Your task to perform on an android device: change your default location settings in chrome Image 0: 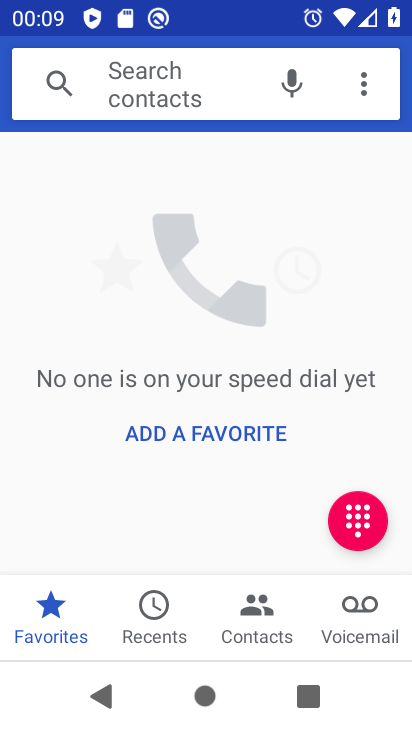
Step 0: press home button
Your task to perform on an android device: change your default location settings in chrome Image 1: 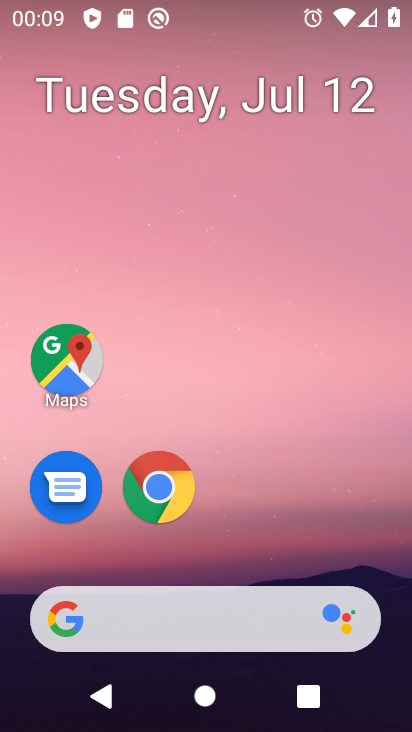
Step 1: drag from (367, 537) to (358, 252)
Your task to perform on an android device: change your default location settings in chrome Image 2: 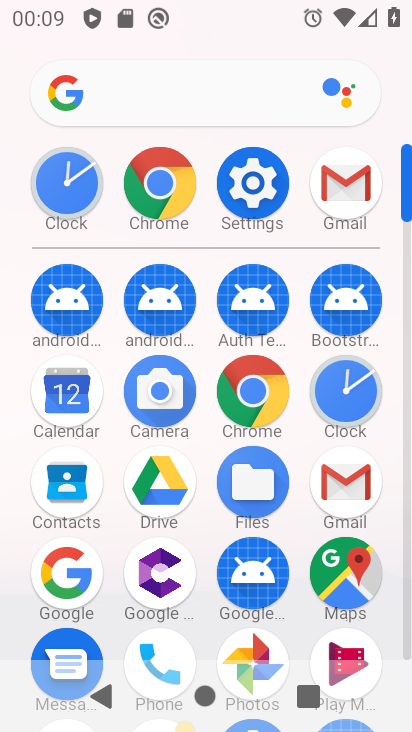
Step 2: click (263, 399)
Your task to perform on an android device: change your default location settings in chrome Image 3: 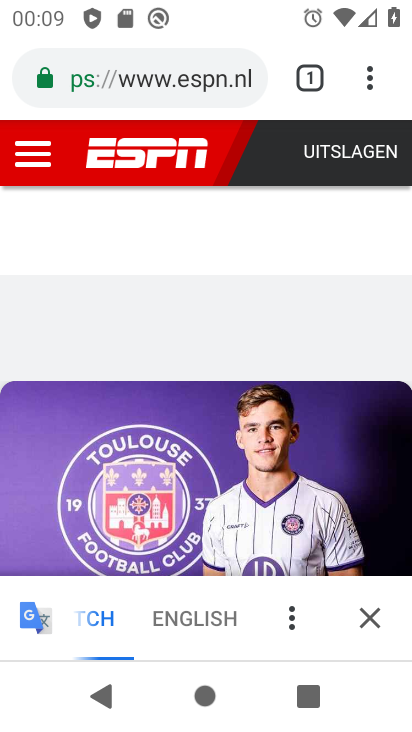
Step 3: click (366, 84)
Your task to perform on an android device: change your default location settings in chrome Image 4: 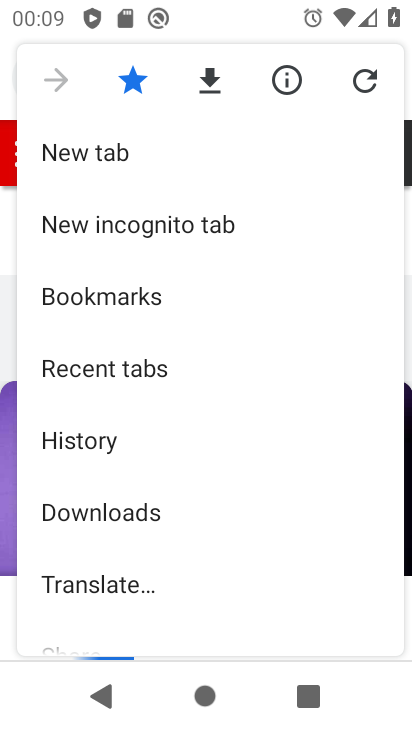
Step 4: drag from (319, 420) to (315, 271)
Your task to perform on an android device: change your default location settings in chrome Image 5: 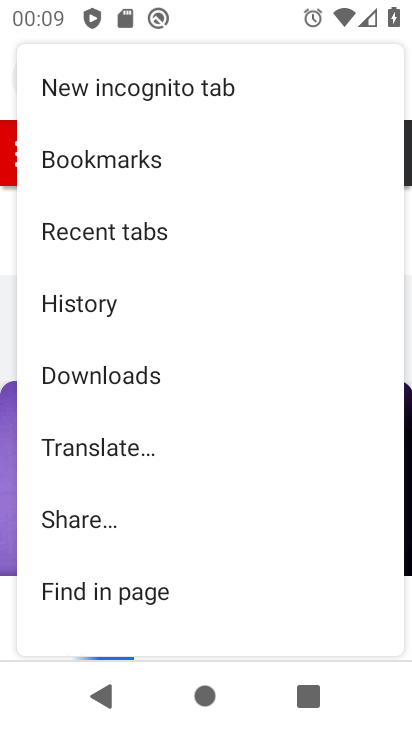
Step 5: drag from (319, 409) to (319, 297)
Your task to perform on an android device: change your default location settings in chrome Image 6: 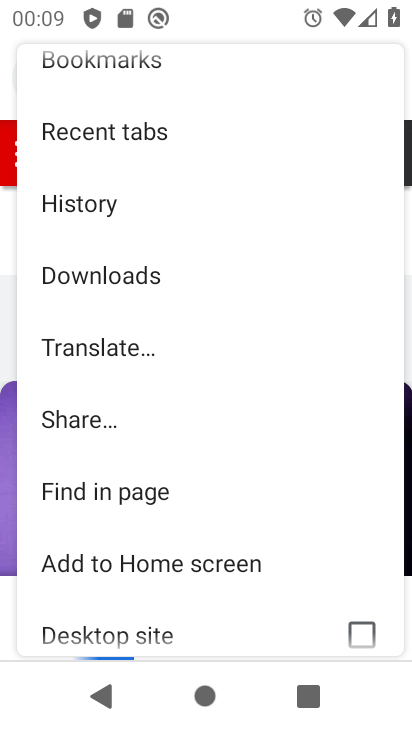
Step 6: drag from (321, 441) to (327, 334)
Your task to perform on an android device: change your default location settings in chrome Image 7: 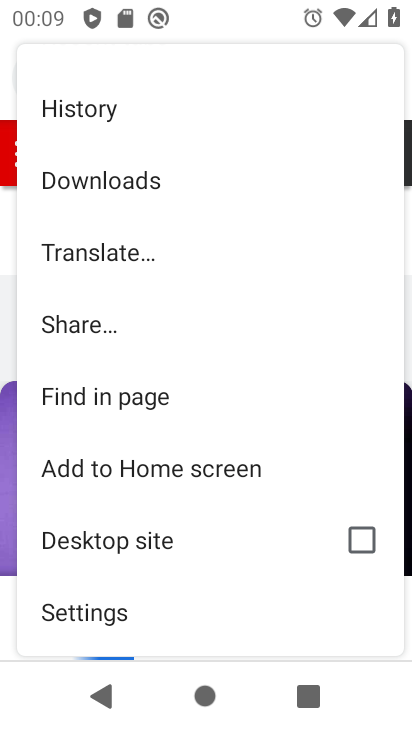
Step 7: drag from (327, 448) to (327, 332)
Your task to perform on an android device: change your default location settings in chrome Image 8: 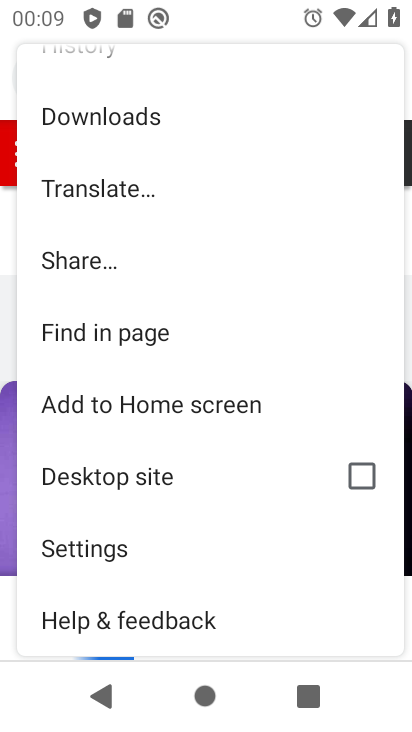
Step 8: click (163, 564)
Your task to perform on an android device: change your default location settings in chrome Image 9: 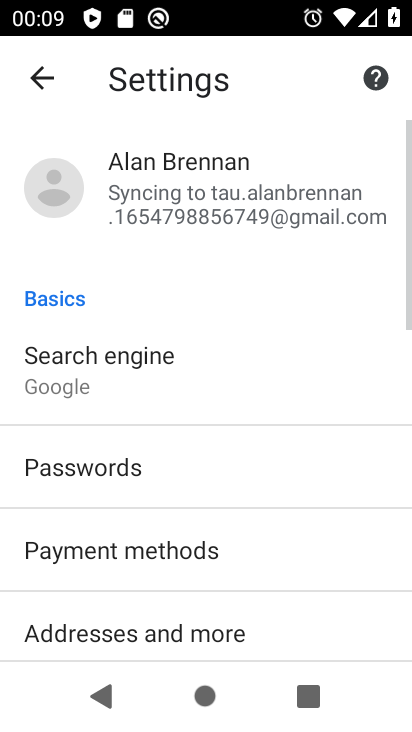
Step 9: drag from (310, 490) to (320, 376)
Your task to perform on an android device: change your default location settings in chrome Image 10: 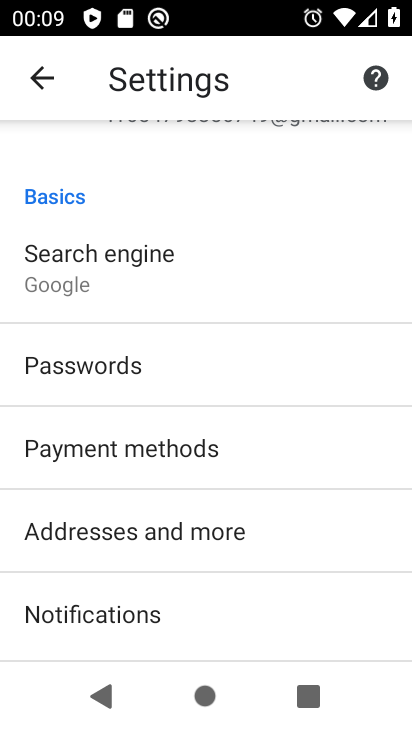
Step 10: drag from (331, 522) to (327, 423)
Your task to perform on an android device: change your default location settings in chrome Image 11: 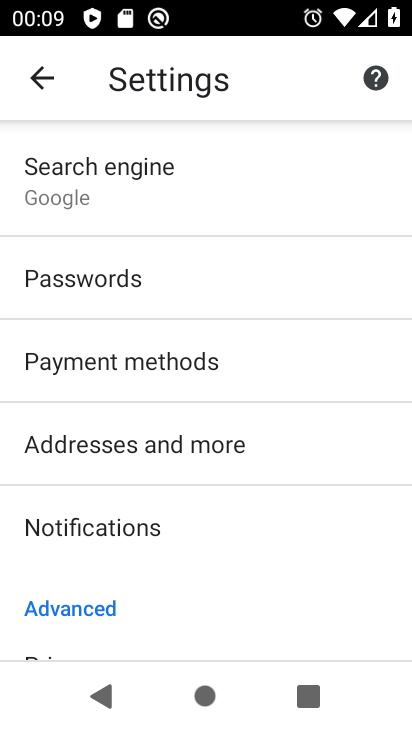
Step 11: drag from (336, 582) to (330, 428)
Your task to perform on an android device: change your default location settings in chrome Image 12: 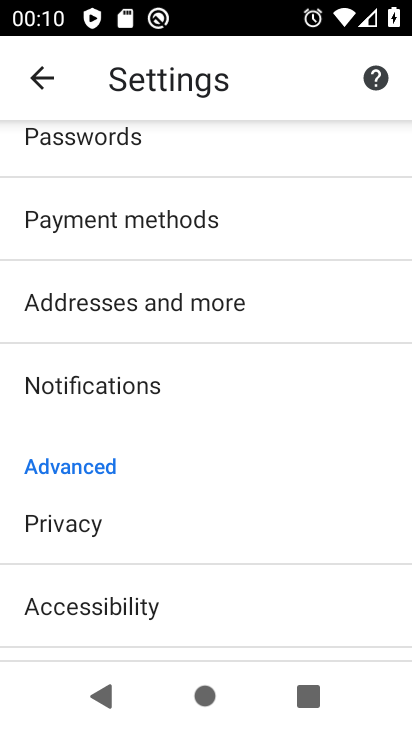
Step 12: drag from (311, 522) to (320, 388)
Your task to perform on an android device: change your default location settings in chrome Image 13: 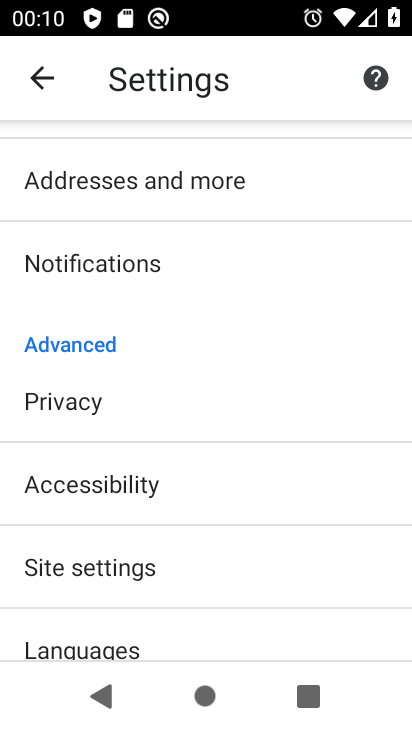
Step 13: drag from (307, 267) to (306, 406)
Your task to perform on an android device: change your default location settings in chrome Image 14: 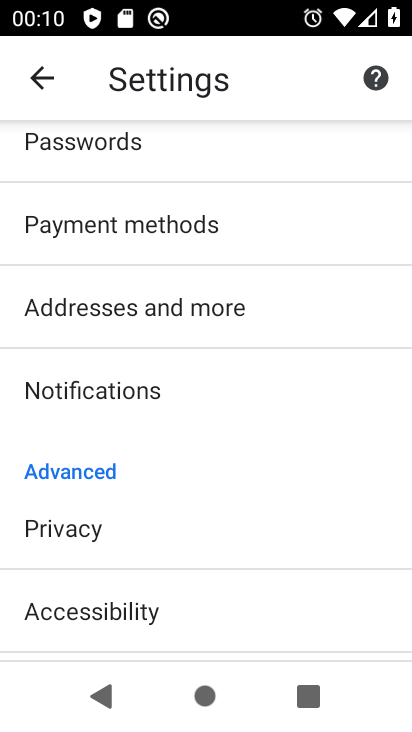
Step 14: drag from (301, 249) to (301, 383)
Your task to perform on an android device: change your default location settings in chrome Image 15: 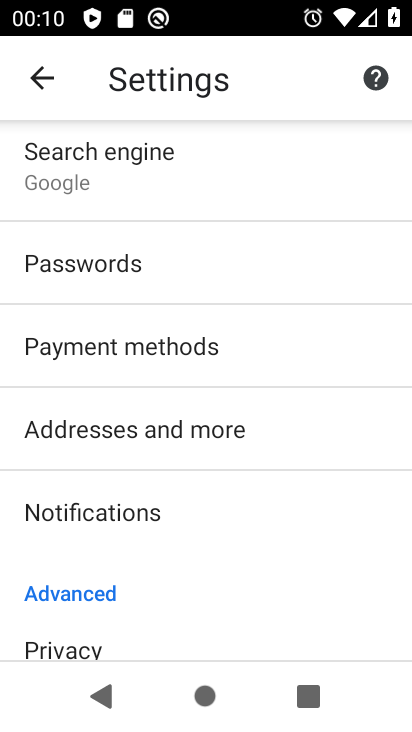
Step 15: drag from (292, 219) to (290, 403)
Your task to perform on an android device: change your default location settings in chrome Image 16: 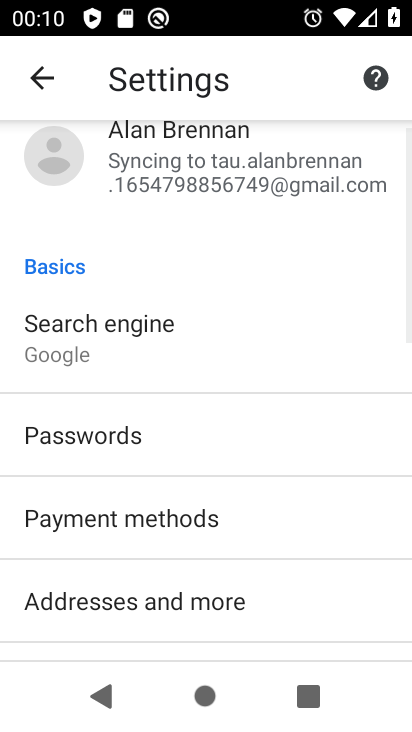
Step 16: click (186, 368)
Your task to perform on an android device: change your default location settings in chrome Image 17: 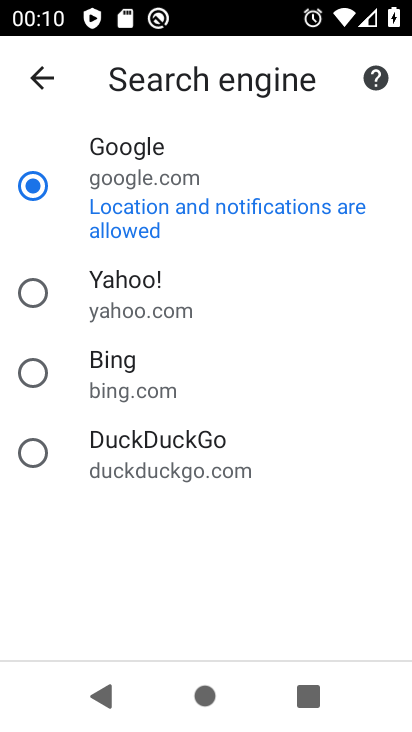
Step 17: click (91, 358)
Your task to perform on an android device: change your default location settings in chrome Image 18: 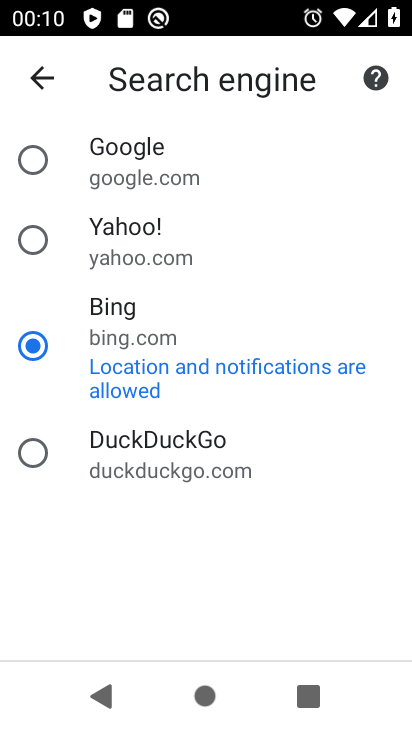
Step 18: task complete